Your task to perform on an android device: turn off data saver in the chrome app Image 0: 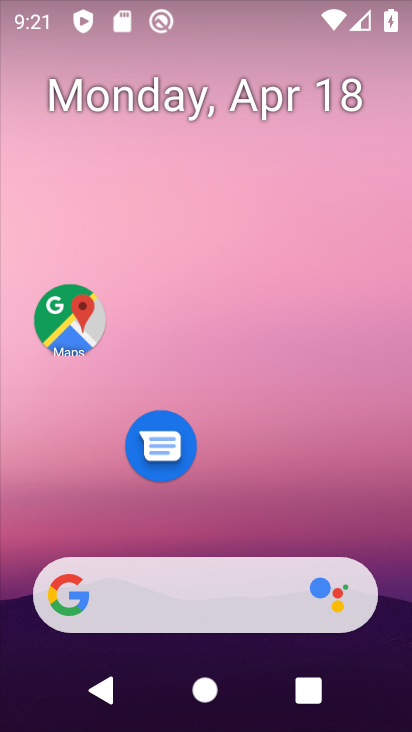
Step 0: drag from (214, 500) to (221, 44)
Your task to perform on an android device: turn off data saver in the chrome app Image 1: 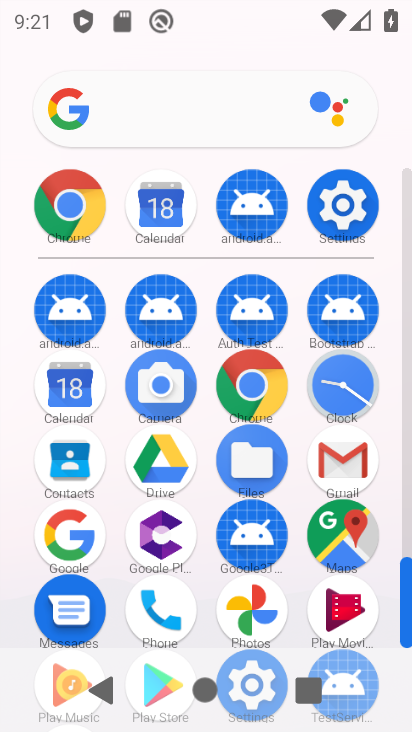
Step 1: click (66, 195)
Your task to perform on an android device: turn off data saver in the chrome app Image 2: 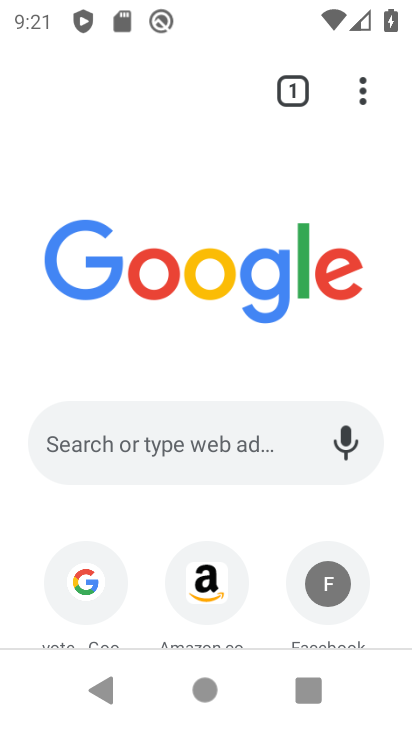
Step 2: click (357, 86)
Your task to perform on an android device: turn off data saver in the chrome app Image 3: 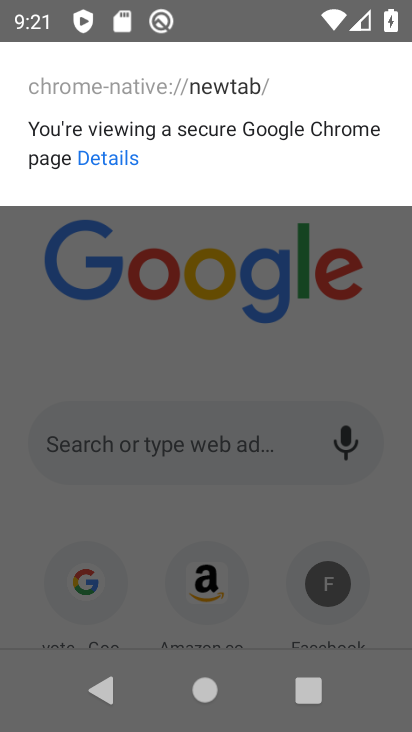
Step 3: click (187, 369)
Your task to perform on an android device: turn off data saver in the chrome app Image 4: 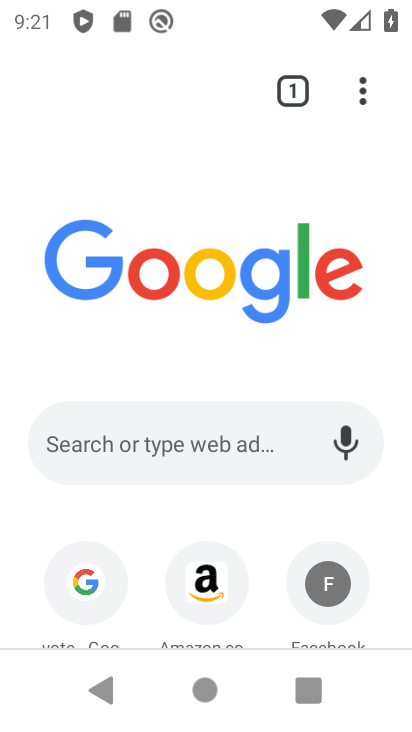
Step 4: click (354, 89)
Your task to perform on an android device: turn off data saver in the chrome app Image 5: 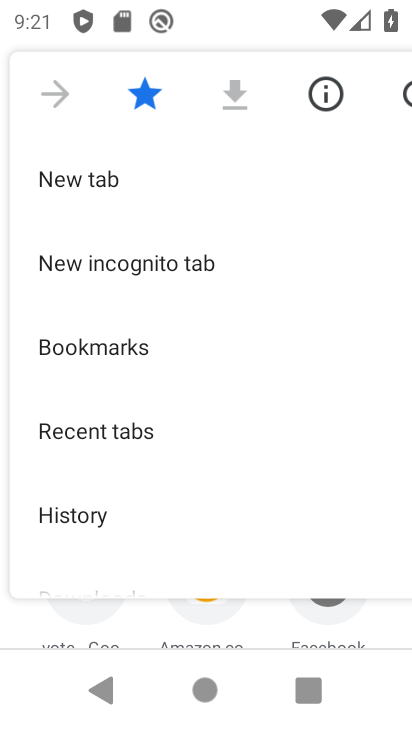
Step 5: drag from (145, 521) to (154, 37)
Your task to perform on an android device: turn off data saver in the chrome app Image 6: 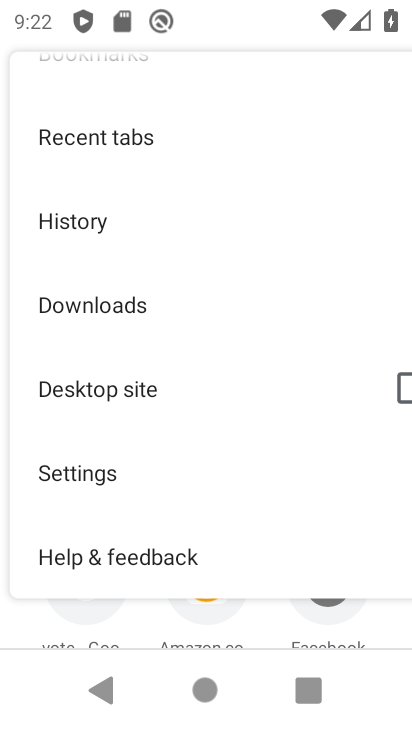
Step 6: click (128, 468)
Your task to perform on an android device: turn off data saver in the chrome app Image 7: 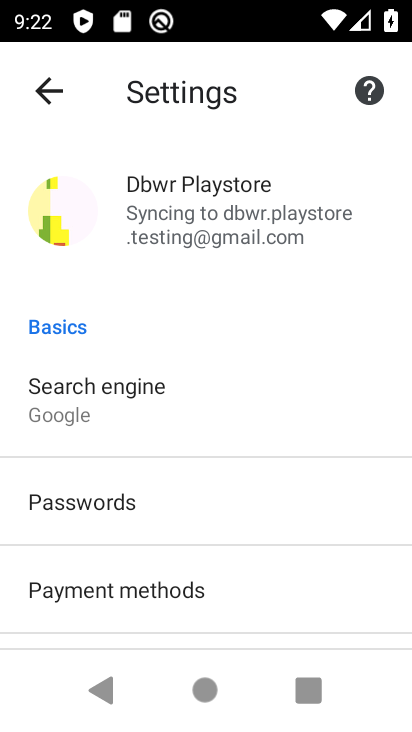
Step 7: drag from (252, 596) to (297, 87)
Your task to perform on an android device: turn off data saver in the chrome app Image 8: 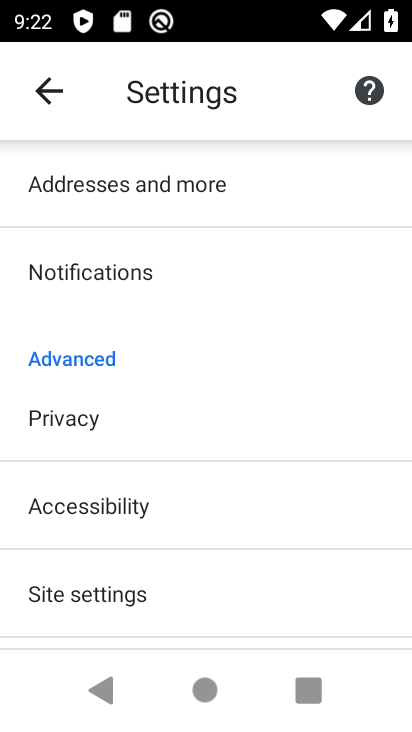
Step 8: drag from (179, 588) to (177, 239)
Your task to perform on an android device: turn off data saver in the chrome app Image 9: 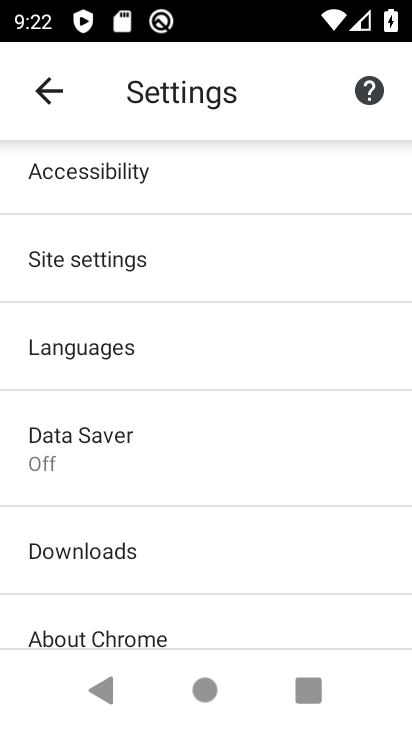
Step 9: click (111, 468)
Your task to perform on an android device: turn off data saver in the chrome app Image 10: 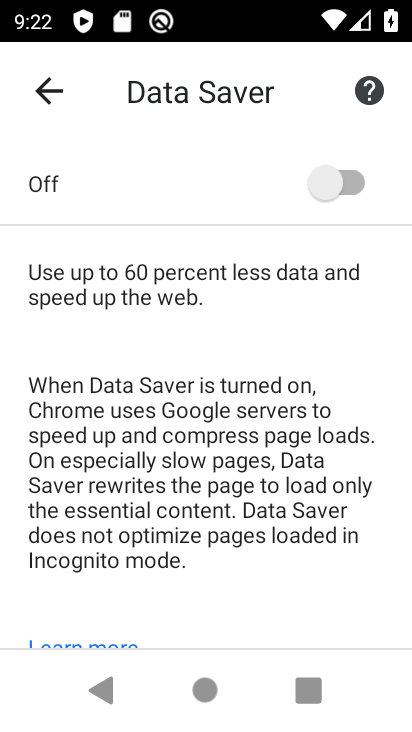
Step 10: task complete